Your task to perform on an android device: Check the weather Image 0: 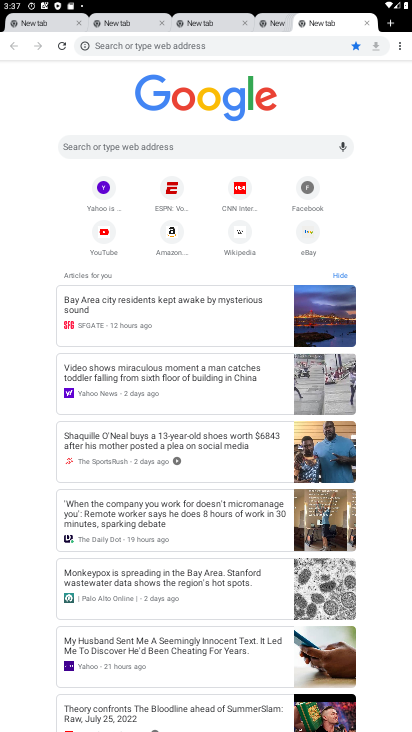
Step 0: click (122, 145)
Your task to perform on an android device: Check the weather Image 1: 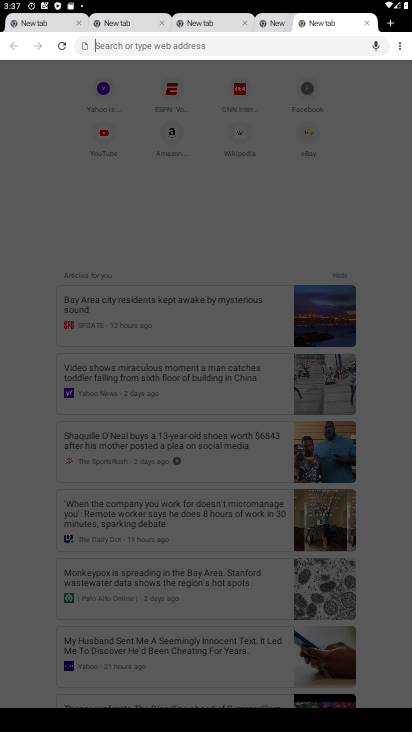
Step 1: type "weather"
Your task to perform on an android device: Check the weather Image 2: 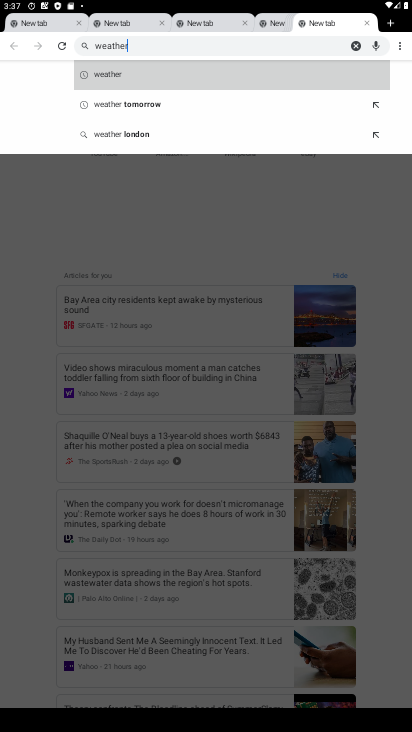
Step 2: type ""
Your task to perform on an android device: Check the weather Image 3: 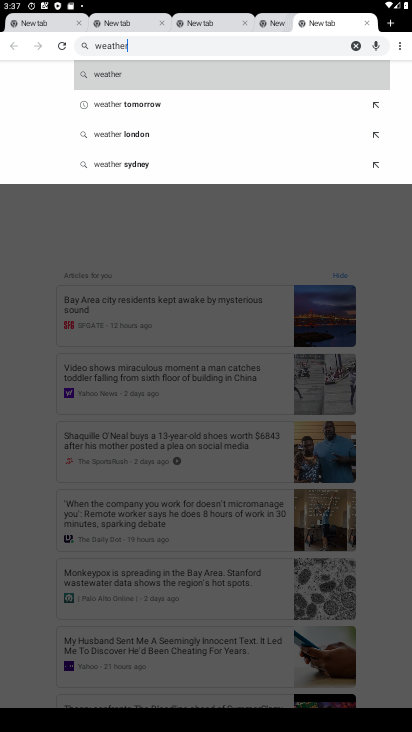
Step 3: click (130, 68)
Your task to perform on an android device: Check the weather Image 4: 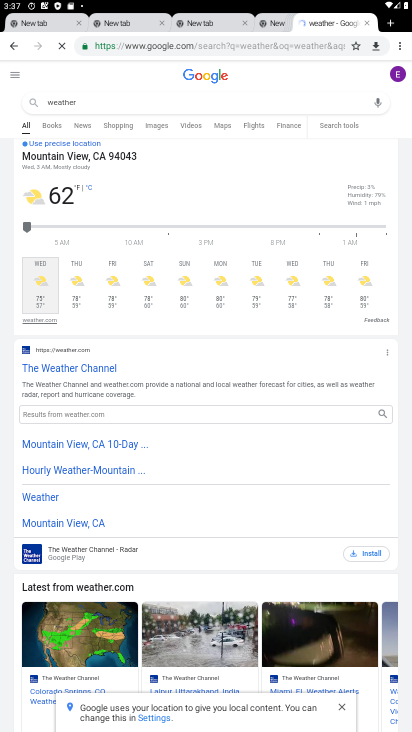
Step 4: task complete